Your task to perform on an android device: turn on translation in the chrome app Image 0: 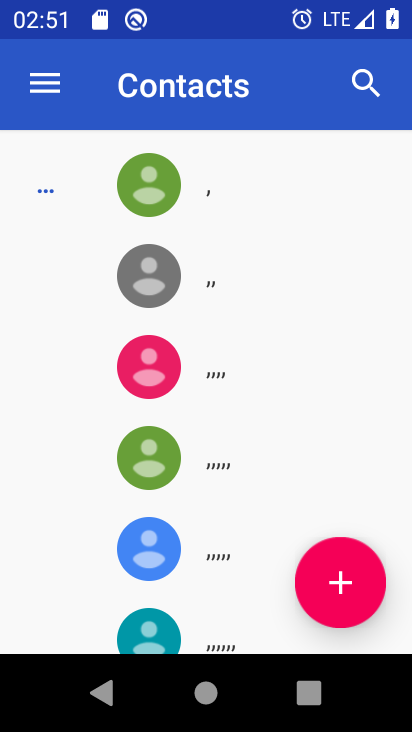
Step 0: press home button
Your task to perform on an android device: turn on translation in the chrome app Image 1: 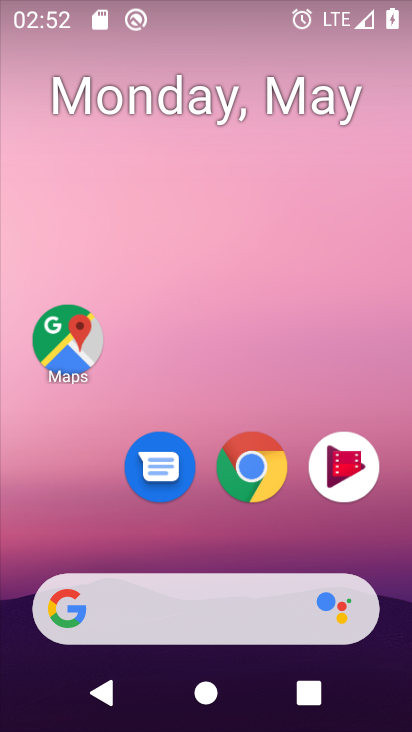
Step 1: click (229, 461)
Your task to perform on an android device: turn on translation in the chrome app Image 2: 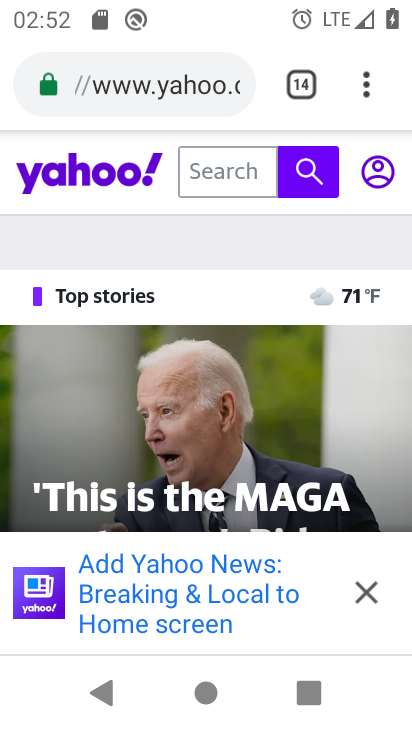
Step 2: click (354, 77)
Your task to perform on an android device: turn on translation in the chrome app Image 3: 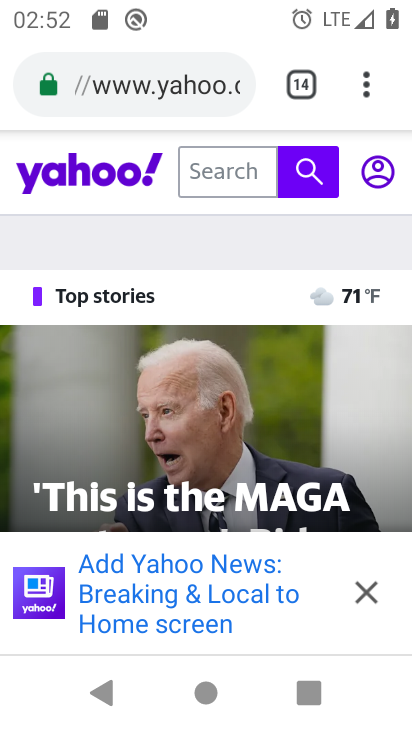
Step 3: click (369, 86)
Your task to perform on an android device: turn on translation in the chrome app Image 4: 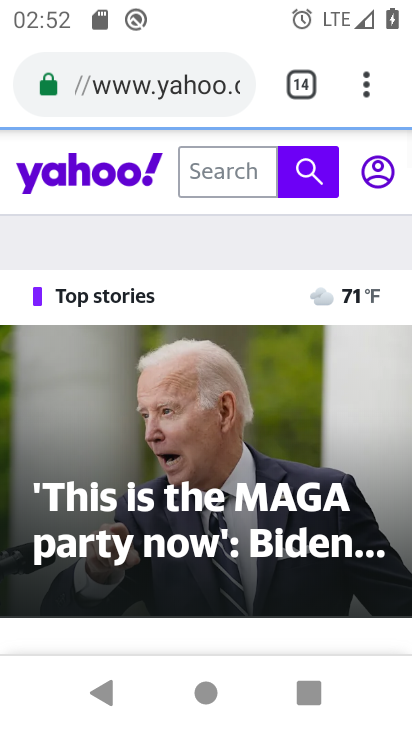
Step 4: click (343, 87)
Your task to perform on an android device: turn on translation in the chrome app Image 5: 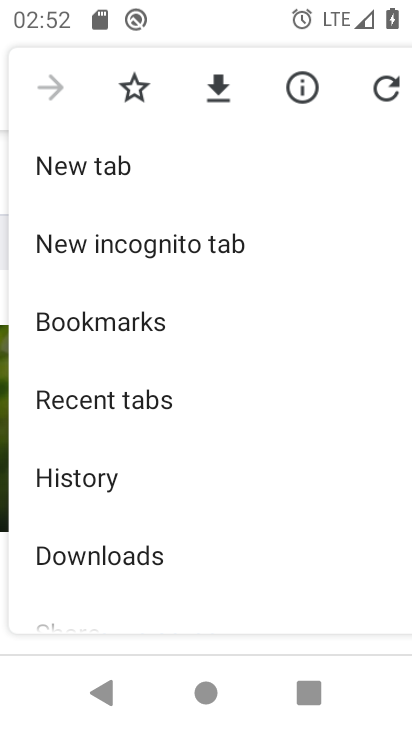
Step 5: drag from (169, 503) to (223, 209)
Your task to perform on an android device: turn on translation in the chrome app Image 6: 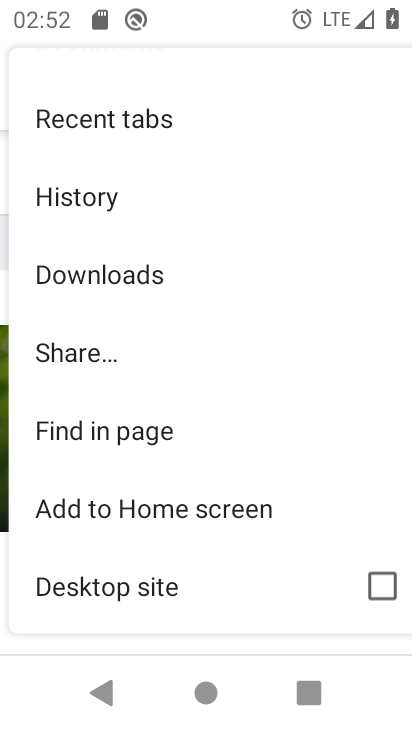
Step 6: drag from (158, 527) to (227, 207)
Your task to perform on an android device: turn on translation in the chrome app Image 7: 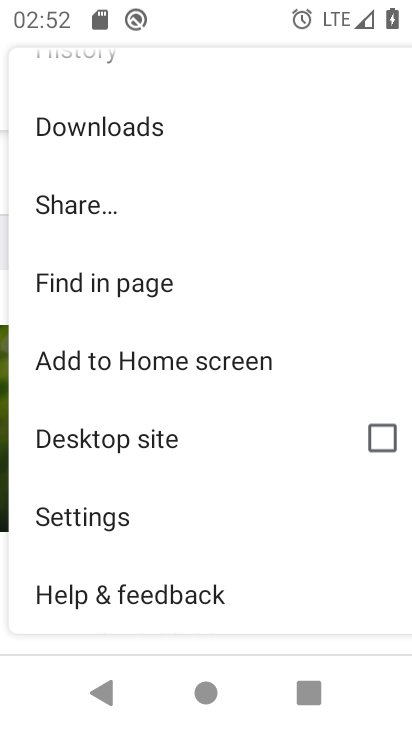
Step 7: click (106, 515)
Your task to perform on an android device: turn on translation in the chrome app Image 8: 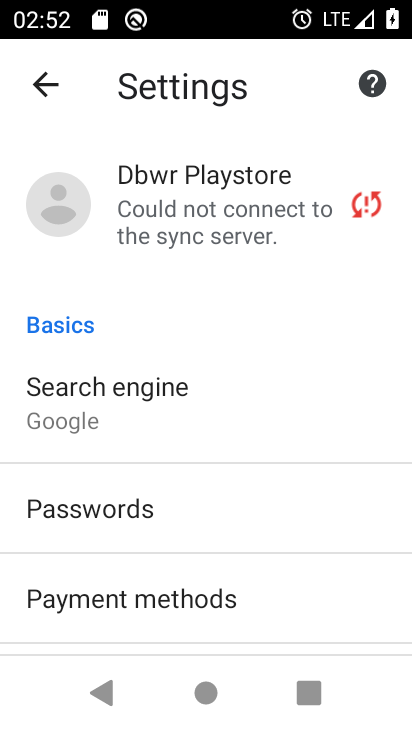
Step 8: drag from (175, 552) to (246, 208)
Your task to perform on an android device: turn on translation in the chrome app Image 9: 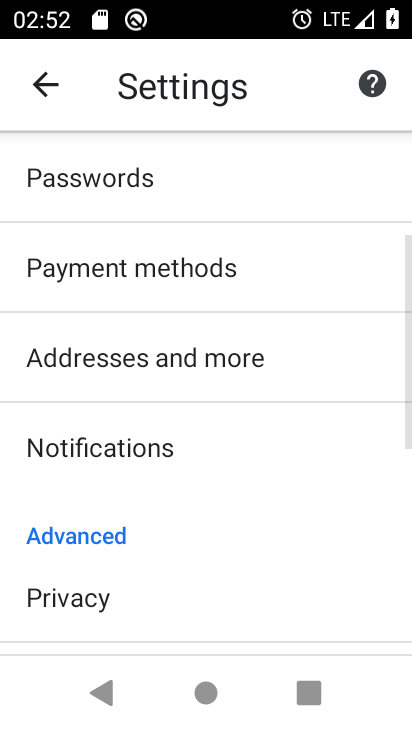
Step 9: drag from (165, 590) to (259, 244)
Your task to perform on an android device: turn on translation in the chrome app Image 10: 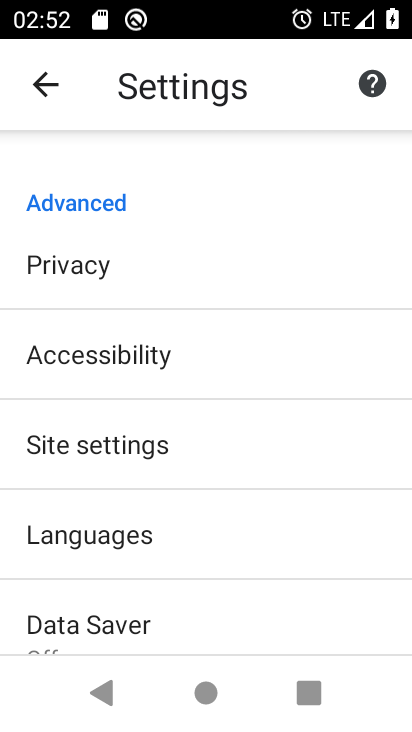
Step 10: click (137, 527)
Your task to perform on an android device: turn on translation in the chrome app Image 11: 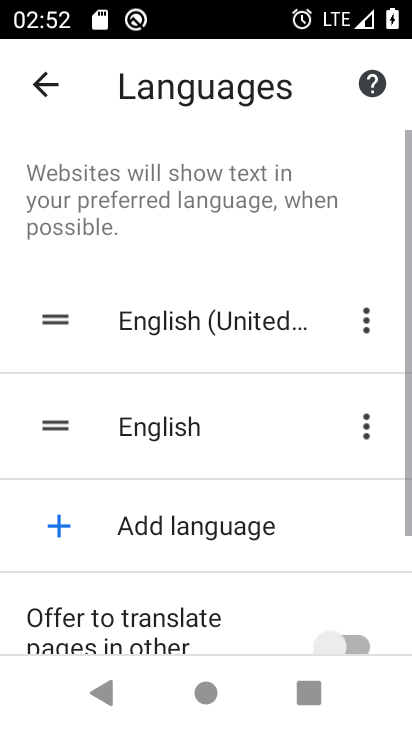
Step 11: click (364, 633)
Your task to perform on an android device: turn on translation in the chrome app Image 12: 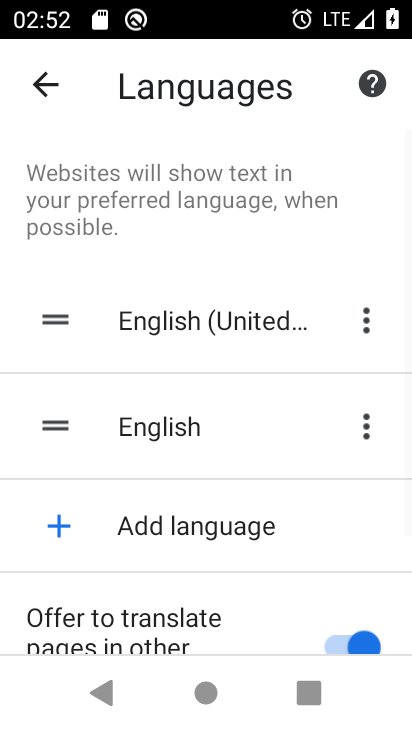
Step 12: task complete